Your task to perform on an android device: turn notification dots off Image 0: 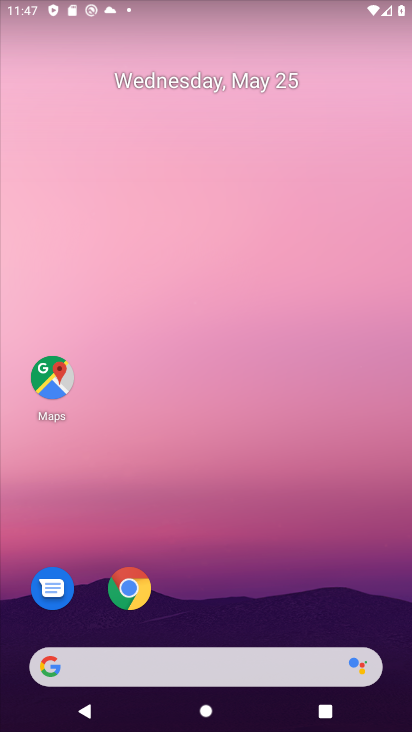
Step 0: drag from (199, 565) to (242, 82)
Your task to perform on an android device: turn notification dots off Image 1: 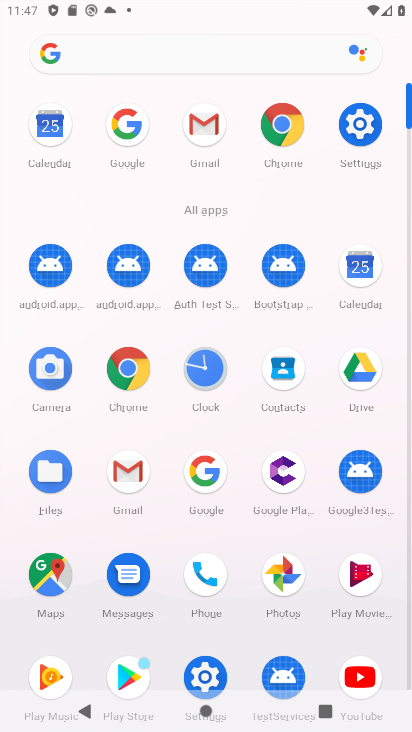
Step 1: click (360, 124)
Your task to perform on an android device: turn notification dots off Image 2: 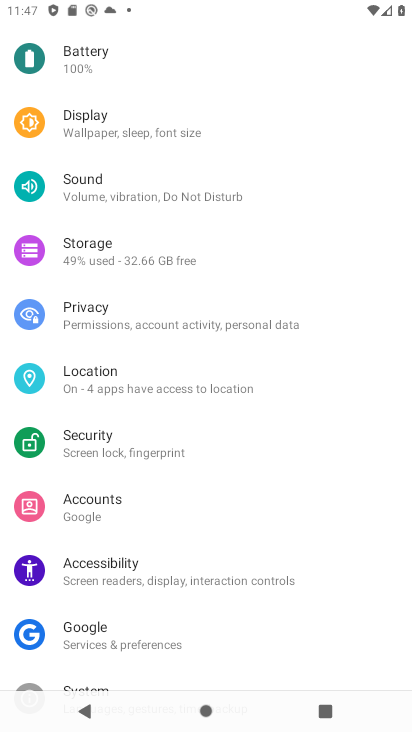
Step 2: drag from (196, 220) to (159, 607)
Your task to perform on an android device: turn notification dots off Image 3: 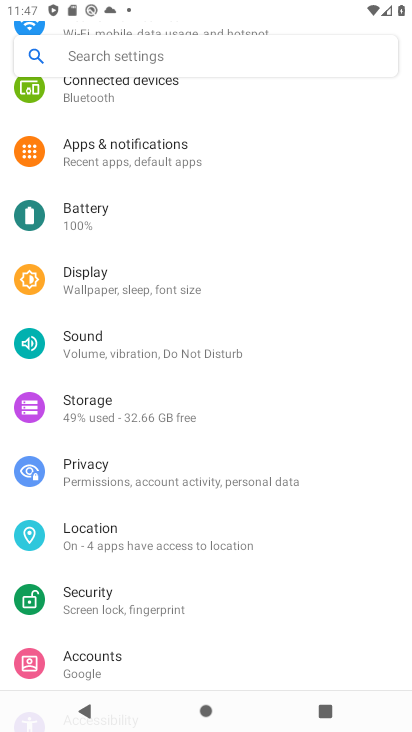
Step 3: click (151, 158)
Your task to perform on an android device: turn notification dots off Image 4: 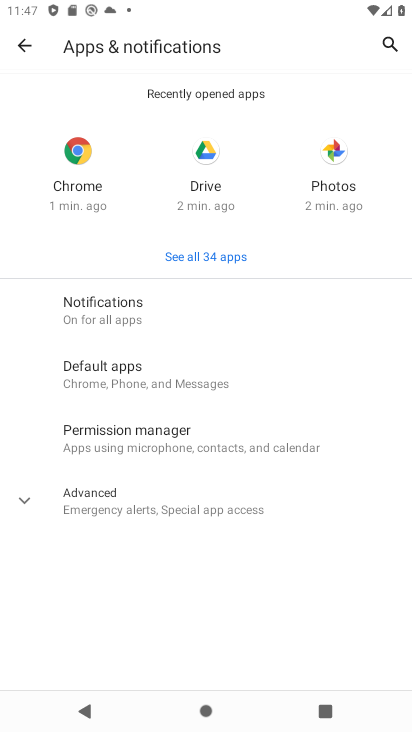
Step 4: click (105, 313)
Your task to perform on an android device: turn notification dots off Image 5: 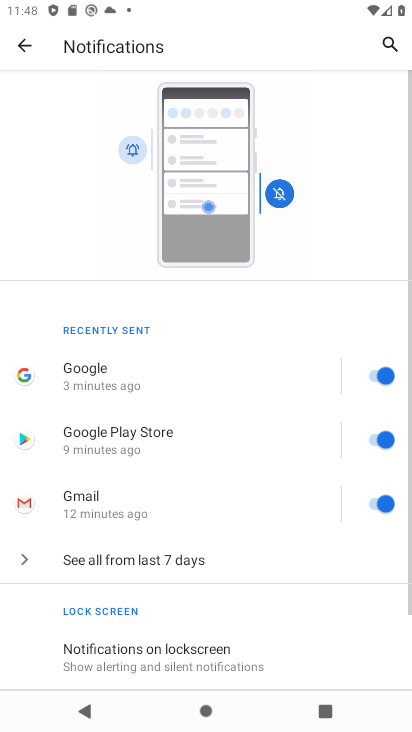
Step 5: drag from (193, 582) to (224, 214)
Your task to perform on an android device: turn notification dots off Image 6: 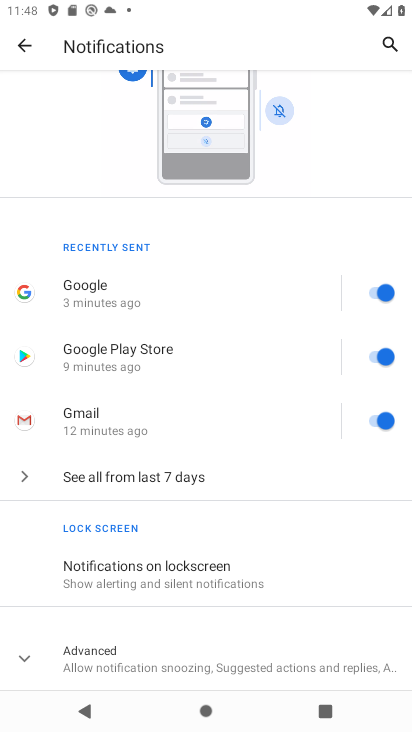
Step 6: click (156, 566)
Your task to perform on an android device: turn notification dots off Image 7: 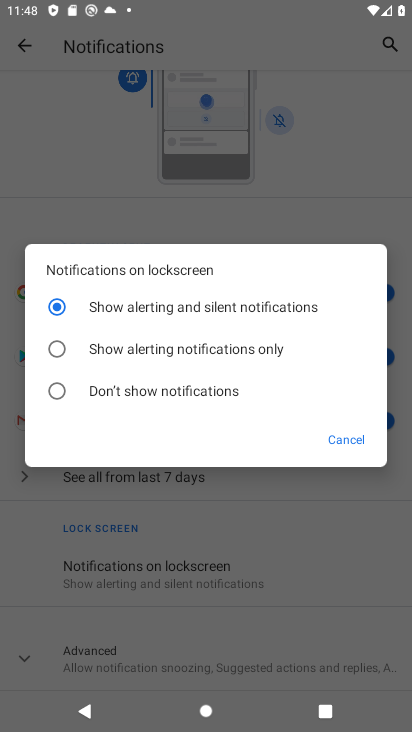
Step 7: click (325, 583)
Your task to perform on an android device: turn notification dots off Image 8: 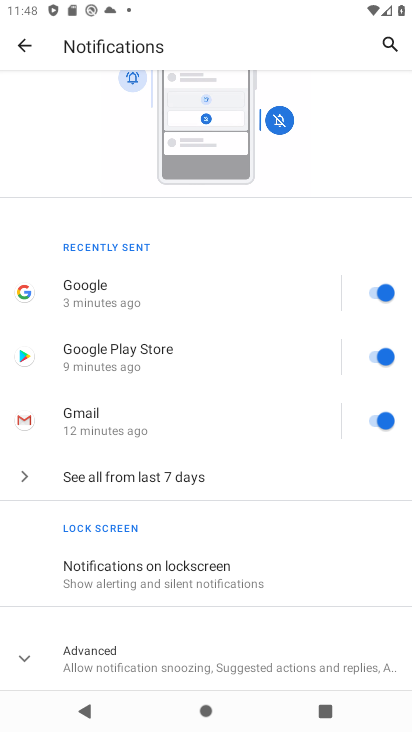
Step 8: click (26, 649)
Your task to perform on an android device: turn notification dots off Image 9: 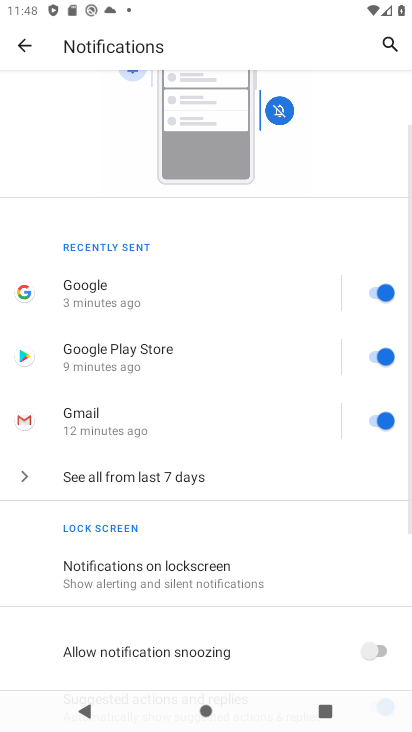
Step 9: drag from (151, 586) to (190, 316)
Your task to perform on an android device: turn notification dots off Image 10: 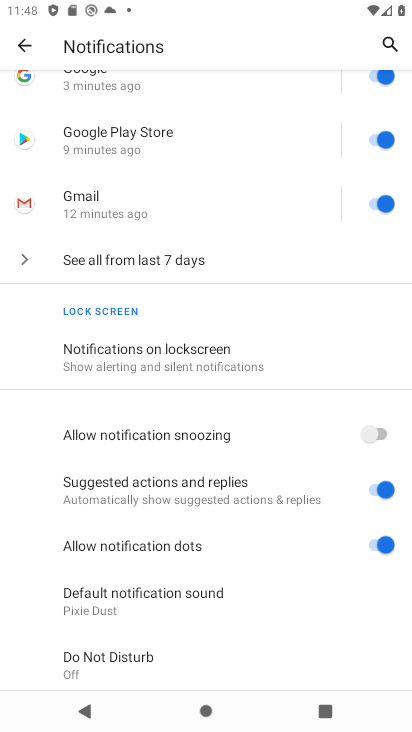
Step 10: click (376, 548)
Your task to perform on an android device: turn notification dots off Image 11: 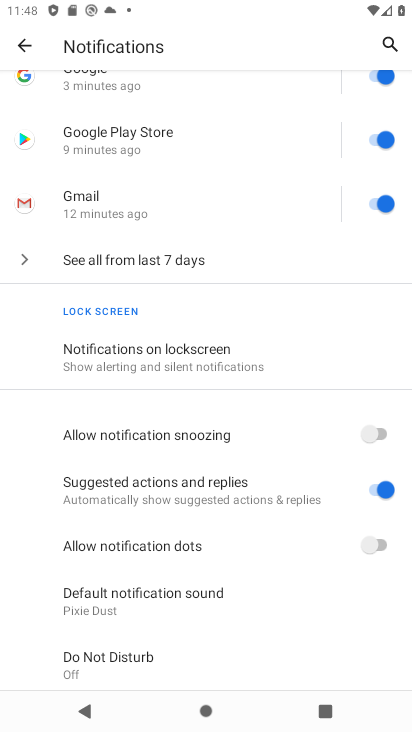
Step 11: task complete